Your task to perform on an android device: change timer sound Image 0: 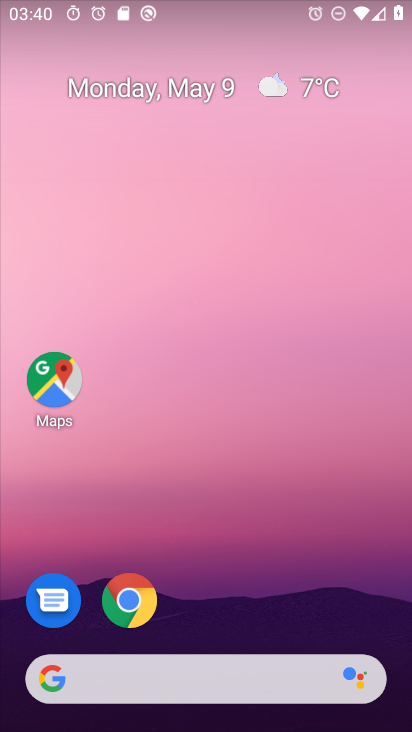
Step 0: drag from (211, 658) to (195, 182)
Your task to perform on an android device: change timer sound Image 1: 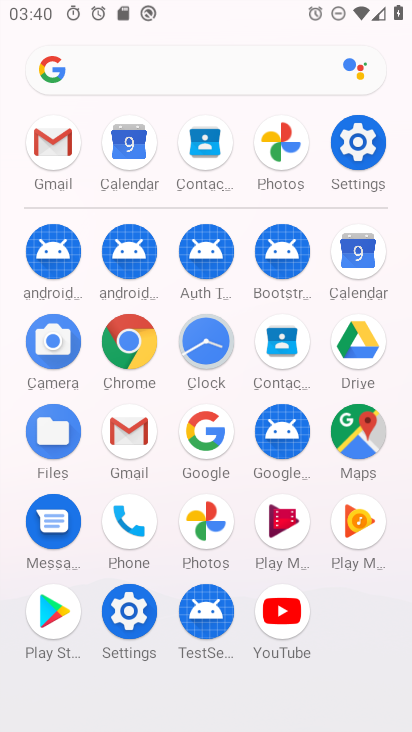
Step 1: click (213, 349)
Your task to perform on an android device: change timer sound Image 2: 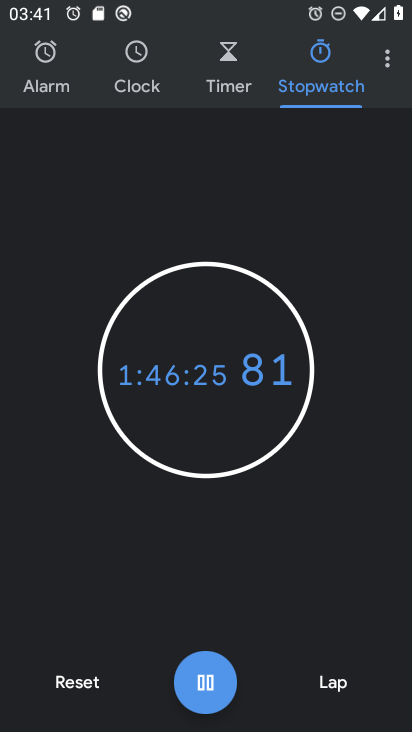
Step 2: click (372, 62)
Your task to perform on an android device: change timer sound Image 3: 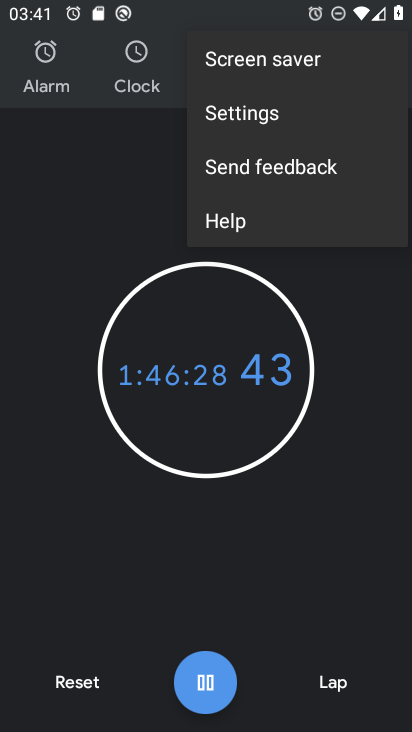
Step 3: click (279, 104)
Your task to perform on an android device: change timer sound Image 4: 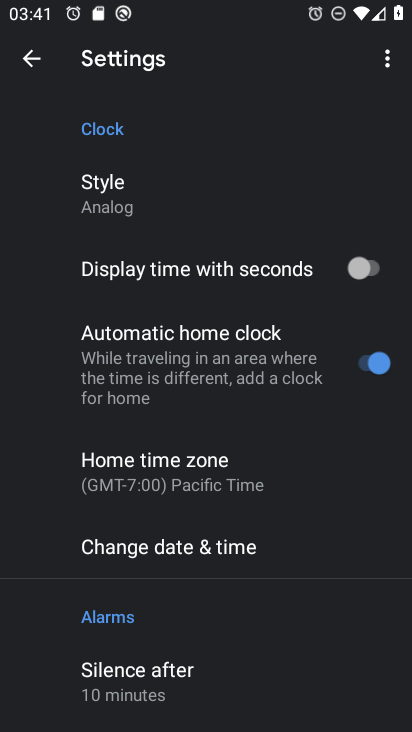
Step 4: drag from (179, 619) to (245, 144)
Your task to perform on an android device: change timer sound Image 5: 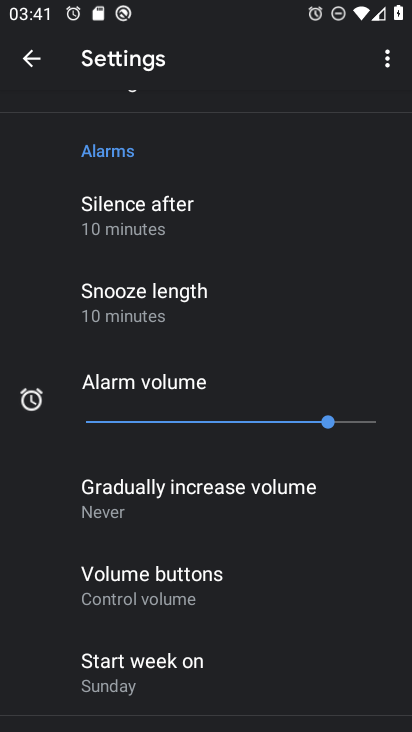
Step 5: drag from (226, 592) to (246, 258)
Your task to perform on an android device: change timer sound Image 6: 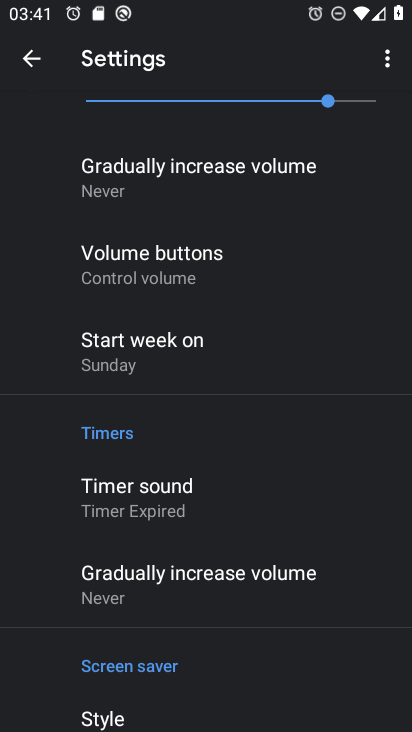
Step 6: click (155, 507)
Your task to perform on an android device: change timer sound Image 7: 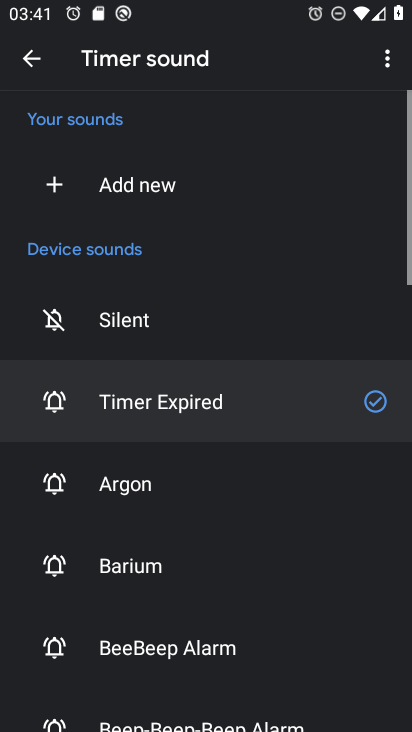
Step 7: click (288, 640)
Your task to perform on an android device: change timer sound Image 8: 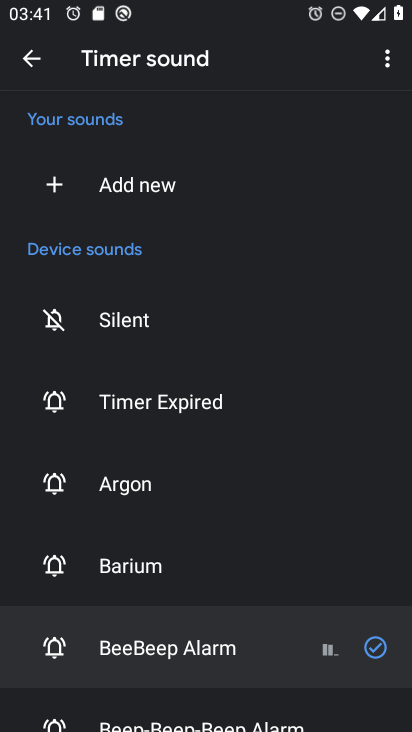
Step 8: task complete